Your task to perform on an android device: turn smart compose on in the gmail app Image 0: 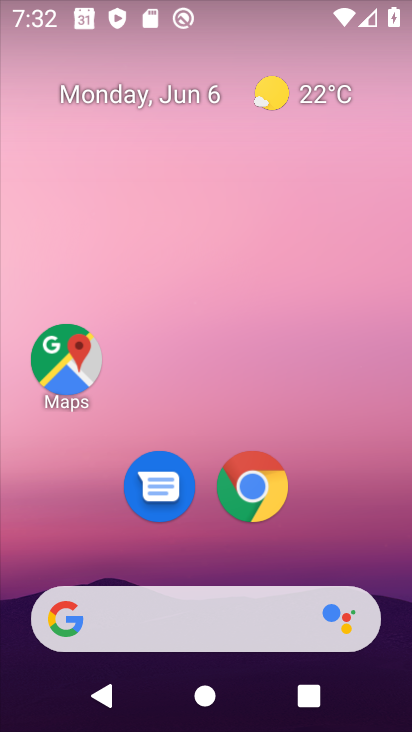
Step 0: drag from (403, 616) to (397, 442)
Your task to perform on an android device: turn smart compose on in the gmail app Image 1: 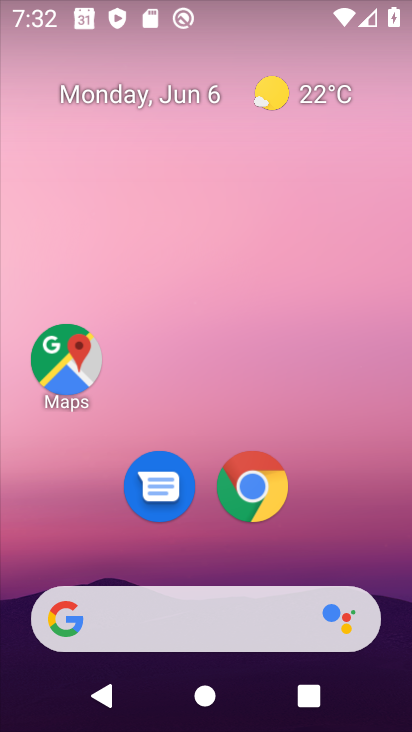
Step 1: drag from (400, 633) to (303, 48)
Your task to perform on an android device: turn smart compose on in the gmail app Image 2: 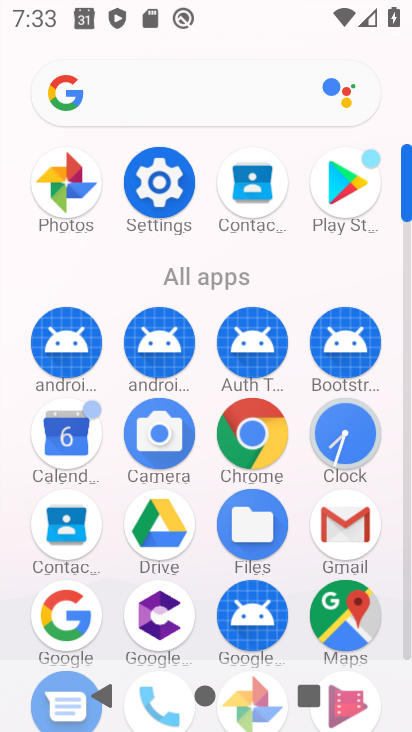
Step 2: click (350, 531)
Your task to perform on an android device: turn smart compose on in the gmail app Image 3: 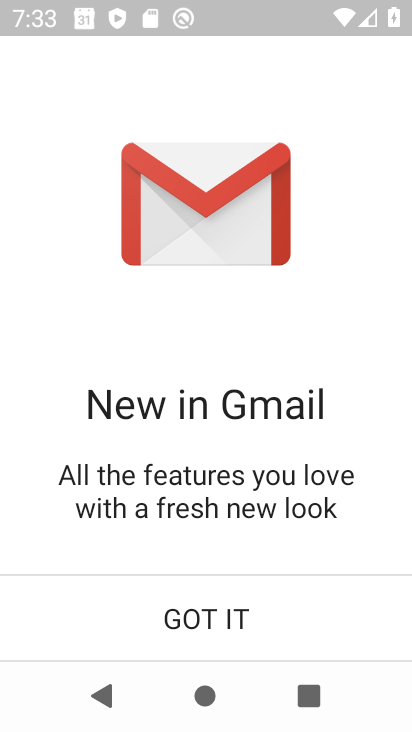
Step 3: click (267, 596)
Your task to perform on an android device: turn smart compose on in the gmail app Image 4: 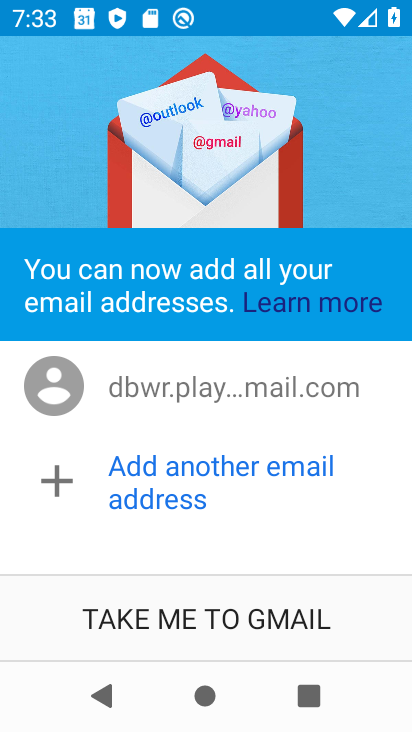
Step 4: click (267, 596)
Your task to perform on an android device: turn smart compose on in the gmail app Image 5: 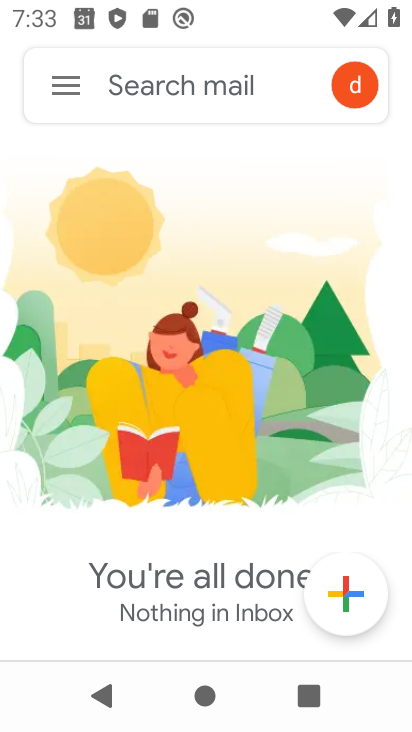
Step 5: click (79, 82)
Your task to perform on an android device: turn smart compose on in the gmail app Image 6: 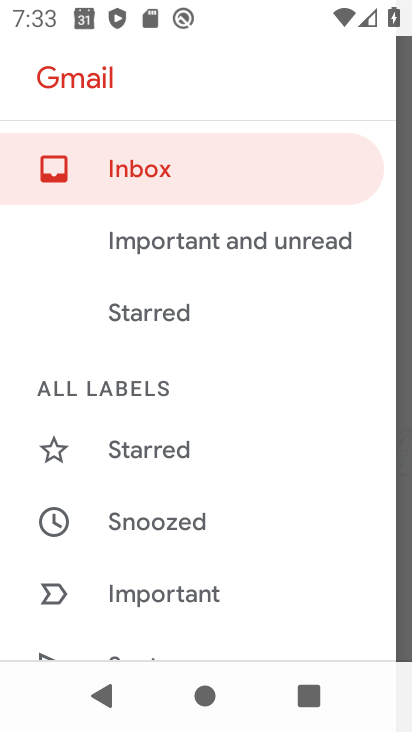
Step 6: drag from (155, 601) to (169, 49)
Your task to perform on an android device: turn smart compose on in the gmail app Image 7: 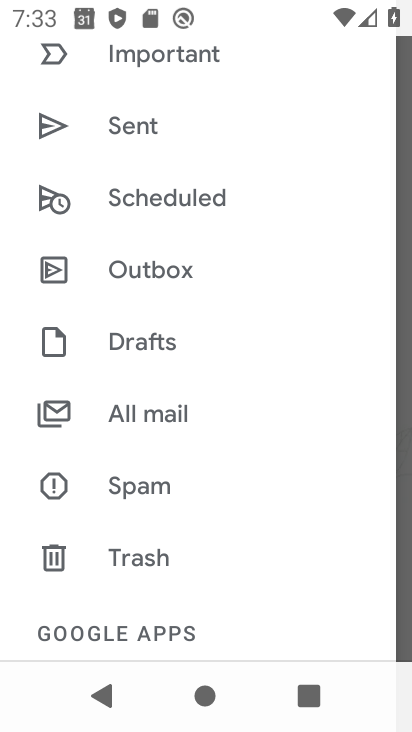
Step 7: drag from (84, 606) to (105, 73)
Your task to perform on an android device: turn smart compose on in the gmail app Image 8: 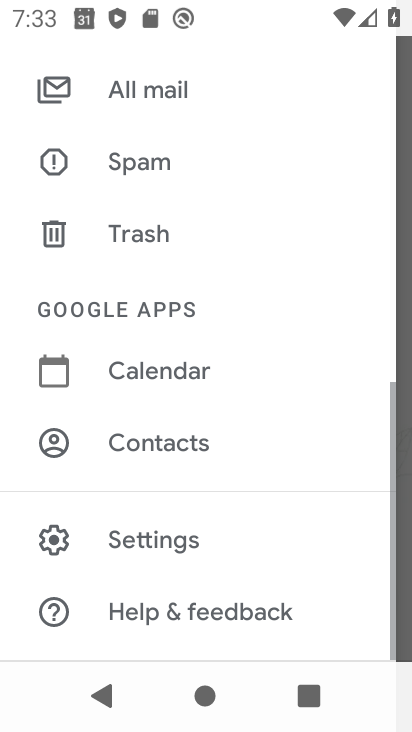
Step 8: click (148, 523)
Your task to perform on an android device: turn smart compose on in the gmail app Image 9: 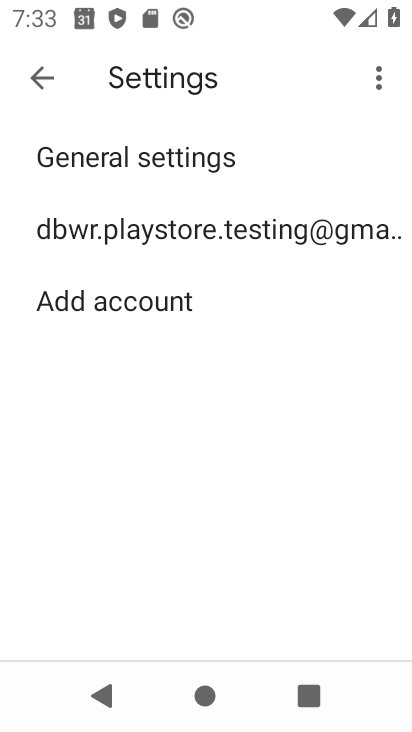
Step 9: click (267, 248)
Your task to perform on an android device: turn smart compose on in the gmail app Image 10: 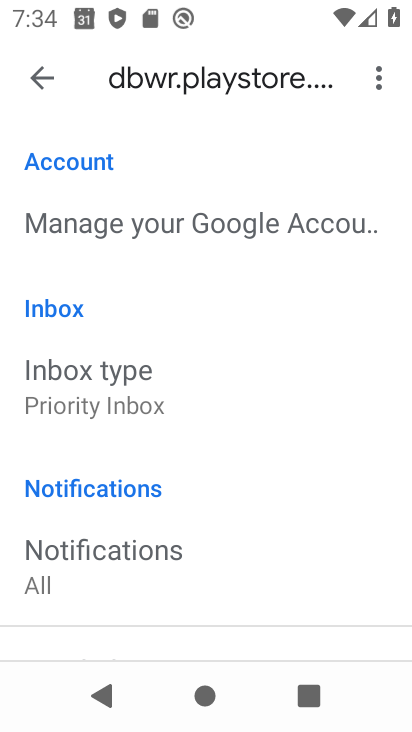
Step 10: drag from (222, 591) to (246, 226)
Your task to perform on an android device: turn smart compose on in the gmail app Image 11: 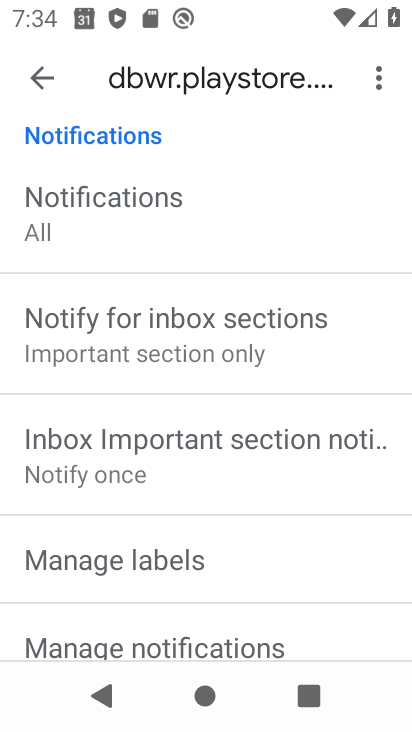
Step 11: click (166, 543)
Your task to perform on an android device: turn smart compose on in the gmail app Image 12: 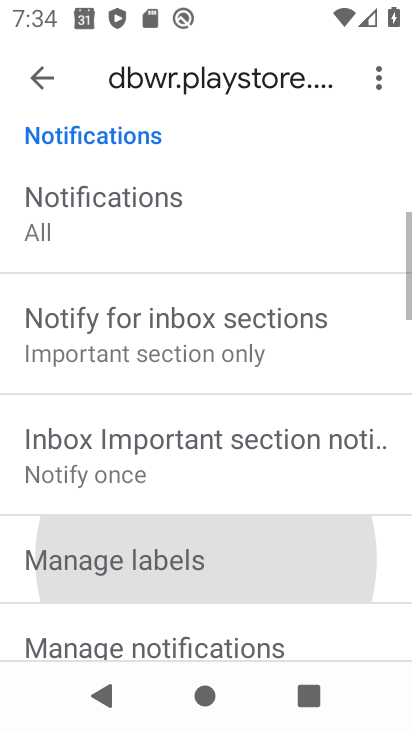
Step 12: task complete